Your task to perform on an android device: open wifi settings Image 0: 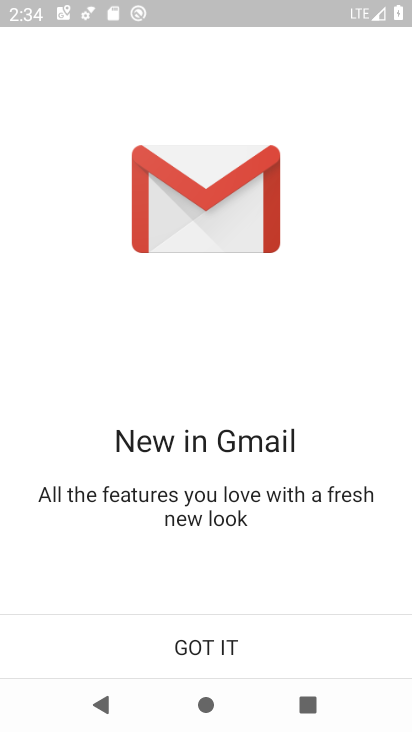
Step 0: press home button
Your task to perform on an android device: open wifi settings Image 1: 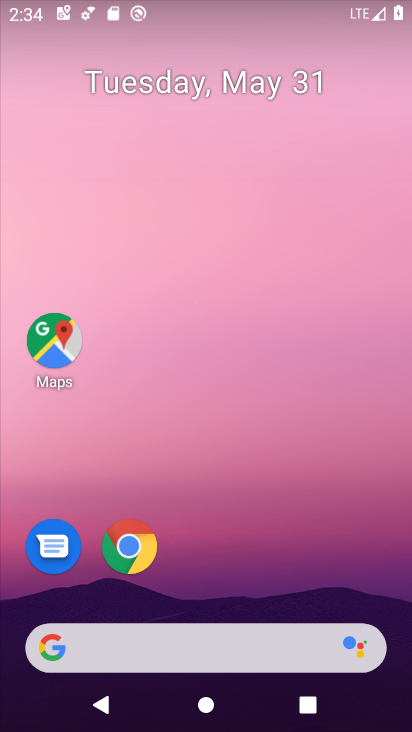
Step 1: drag from (296, 365) to (179, 48)
Your task to perform on an android device: open wifi settings Image 2: 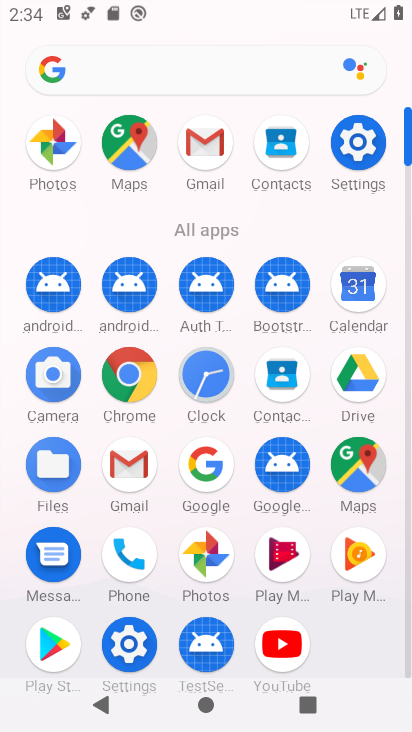
Step 2: click (358, 144)
Your task to perform on an android device: open wifi settings Image 3: 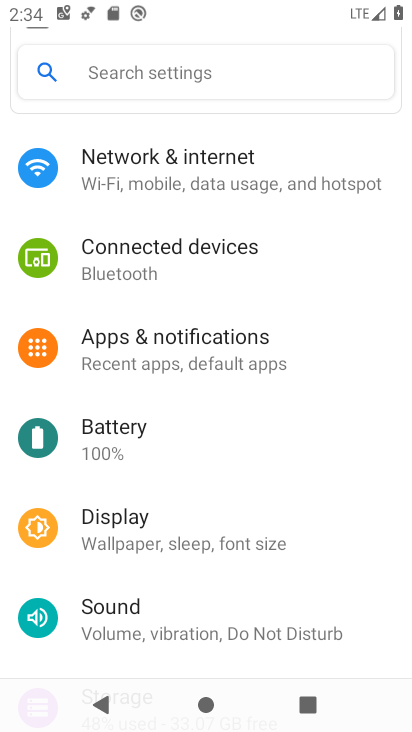
Step 3: click (215, 171)
Your task to perform on an android device: open wifi settings Image 4: 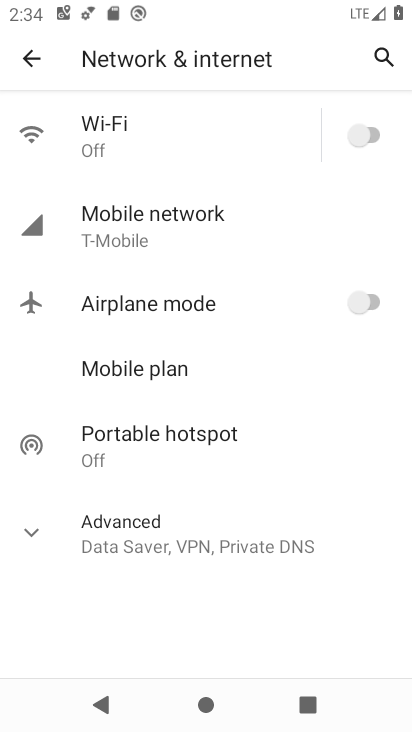
Step 4: click (149, 125)
Your task to perform on an android device: open wifi settings Image 5: 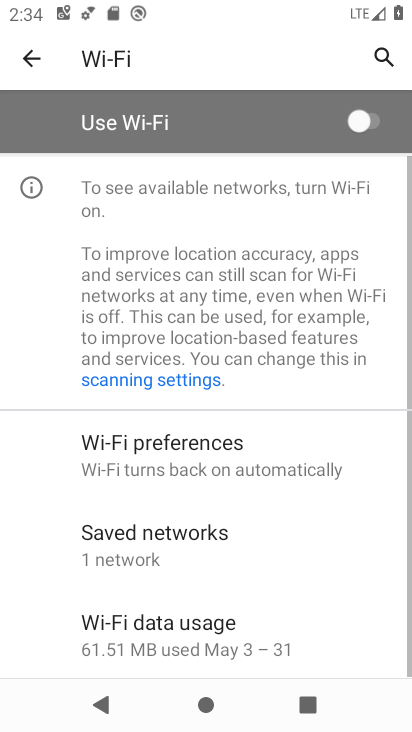
Step 5: task complete